Your task to perform on an android device: check the backup settings in the google photos Image 0: 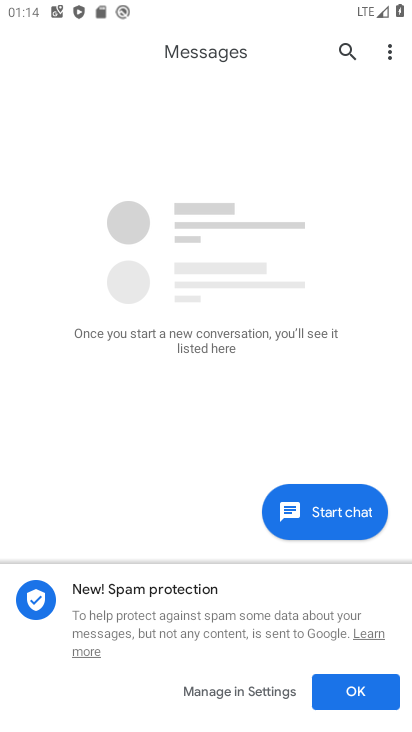
Step 0: press home button
Your task to perform on an android device: check the backup settings in the google photos Image 1: 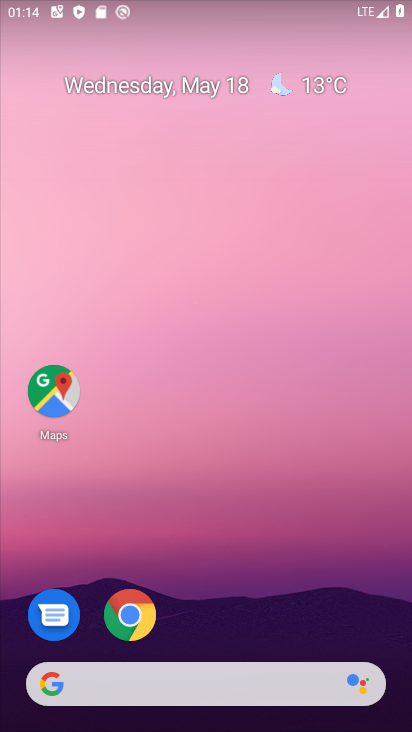
Step 1: drag from (136, 686) to (273, 117)
Your task to perform on an android device: check the backup settings in the google photos Image 2: 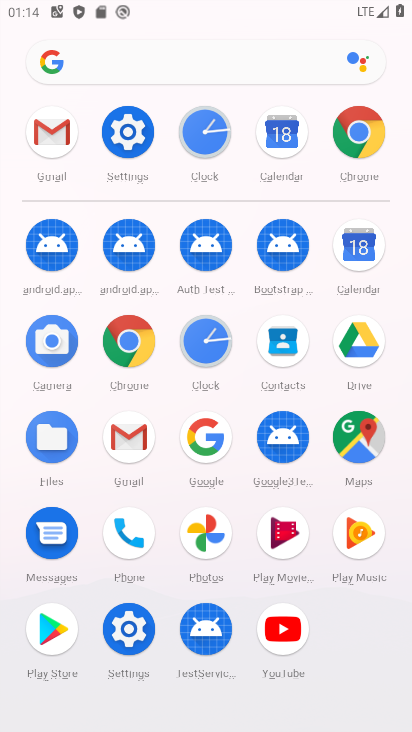
Step 2: click (203, 532)
Your task to perform on an android device: check the backup settings in the google photos Image 3: 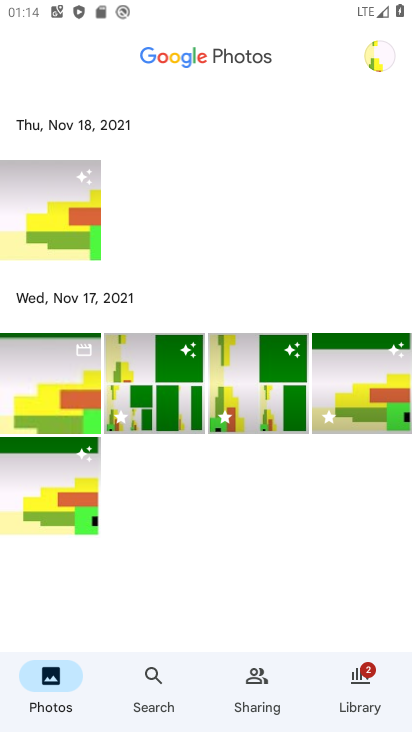
Step 3: click (384, 51)
Your task to perform on an android device: check the backup settings in the google photos Image 4: 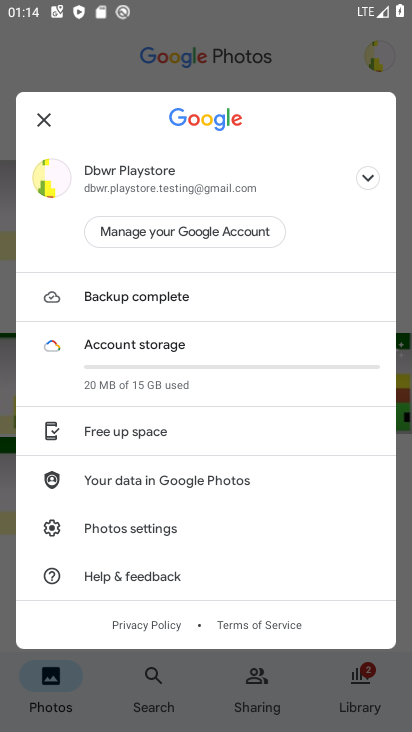
Step 4: click (131, 534)
Your task to perform on an android device: check the backup settings in the google photos Image 5: 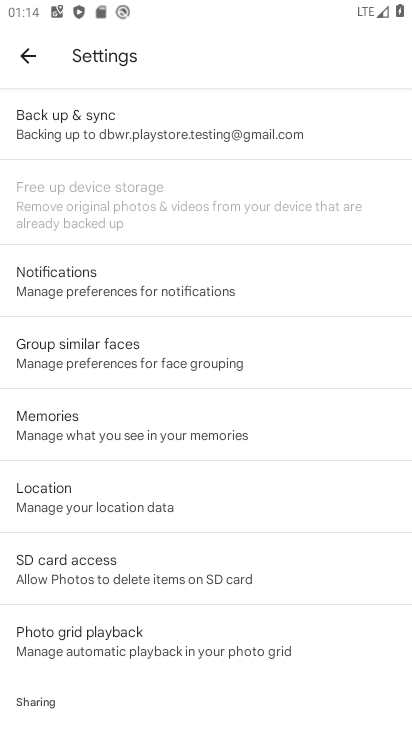
Step 5: click (143, 135)
Your task to perform on an android device: check the backup settings in the google photos Image 6: 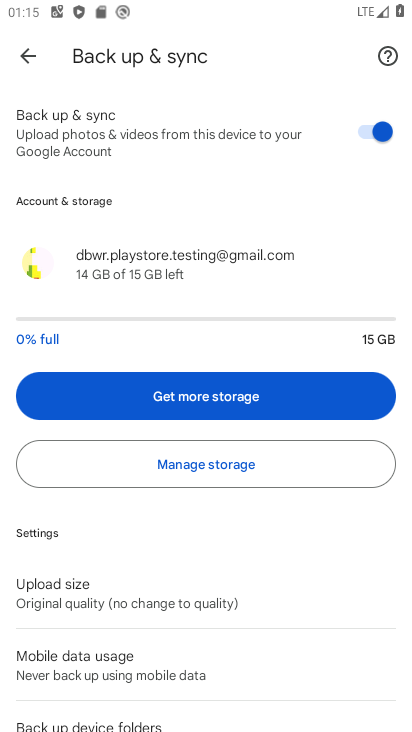
Step 6: task complete